Your task to perform on an android device: install app "YouTube Kids" Image 0: 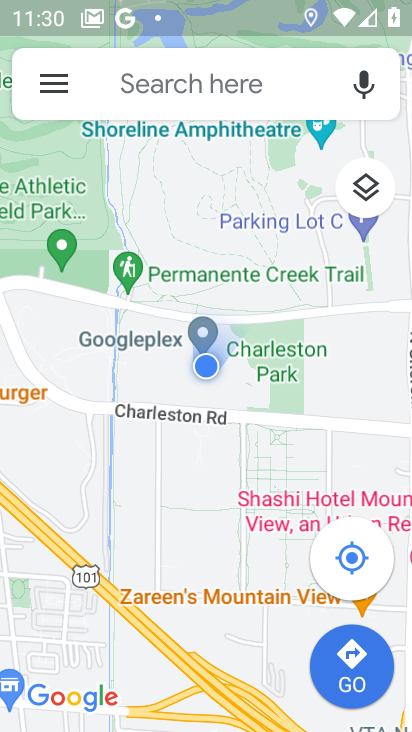
Step 0: press back button
Your task to perform on an android device: install app "YouTube Kids" Image 1: 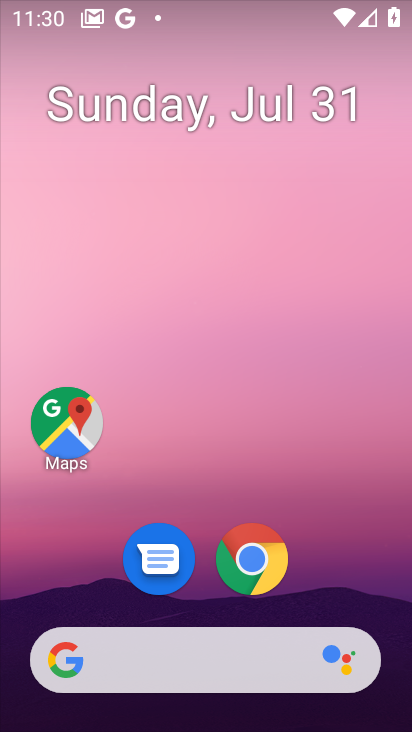
Step 1: drag from (118, 564) to (196, 3)
Your task to perform on an android device: install app "YouTube Kids" Image 2: 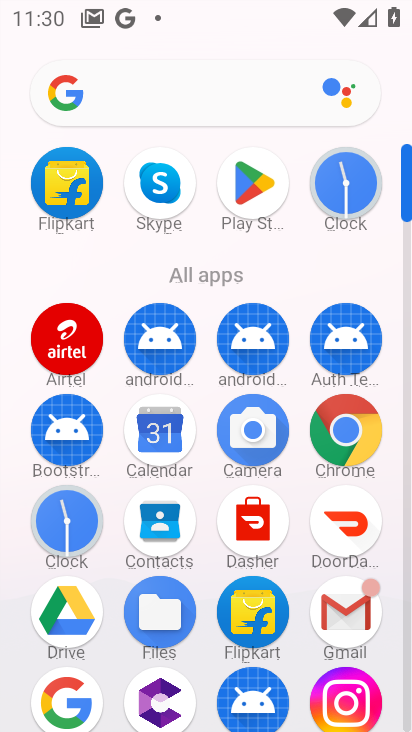
Step 2: click (258, 195)
Your task to perform on an android device: install app "YouTube Kids" Image 3: 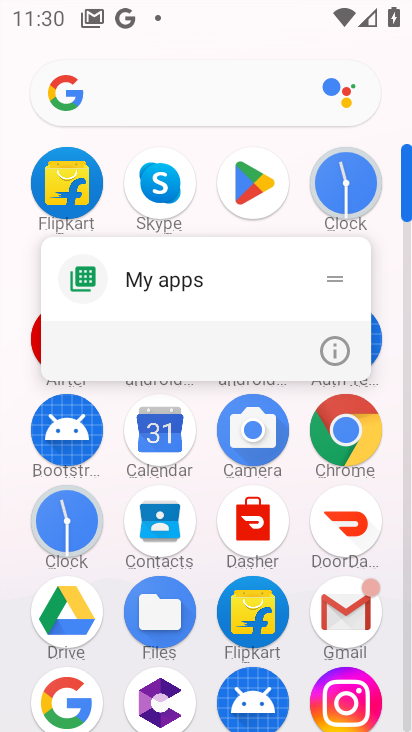
Step 3: click (238, 188)
Your task to perform on an android device: install app "YouTube Kids" Image 4: 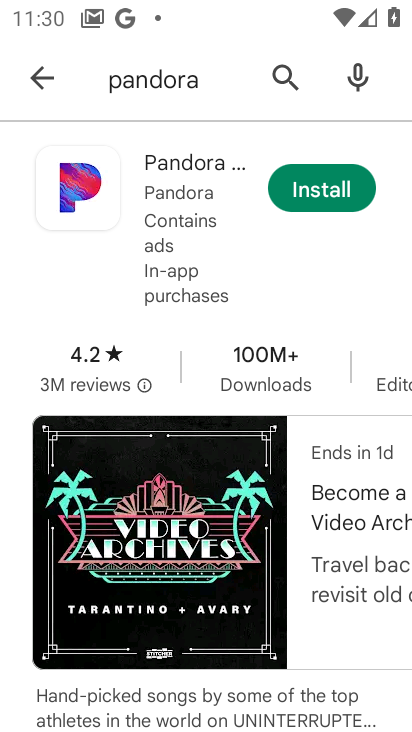
Step 4: click (286, 54)
Your task to perform on an android device: install app "YouTube Kids" Image 5: 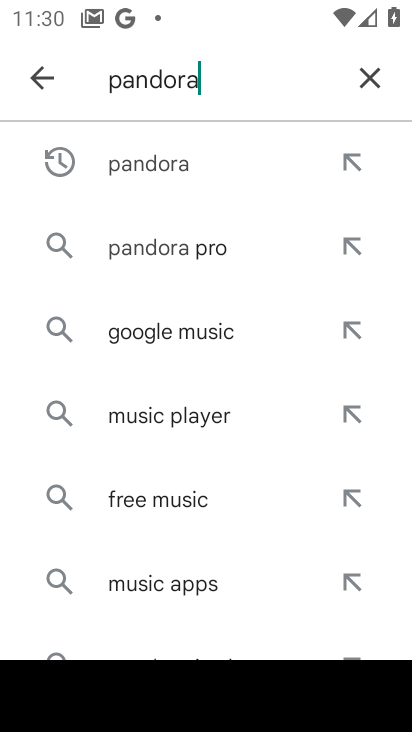
Step 5: click (369, 84)
Your task to perform on an android device: install app "YouTube Kids" Image 6: 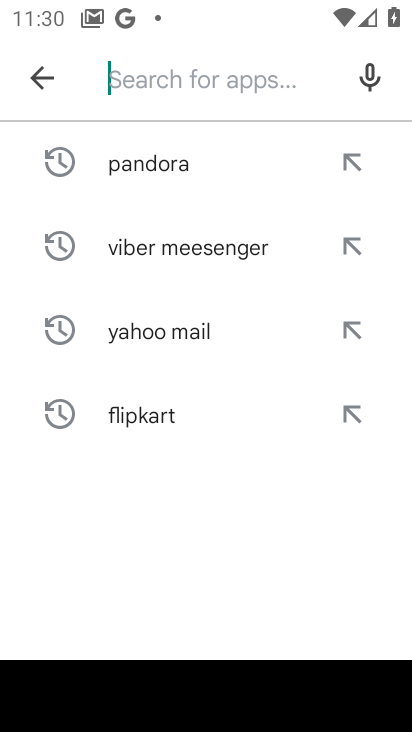
Step 6: click (140, 78)
Your task to perform on an android device: install app "YouTube Kids" Image 7: 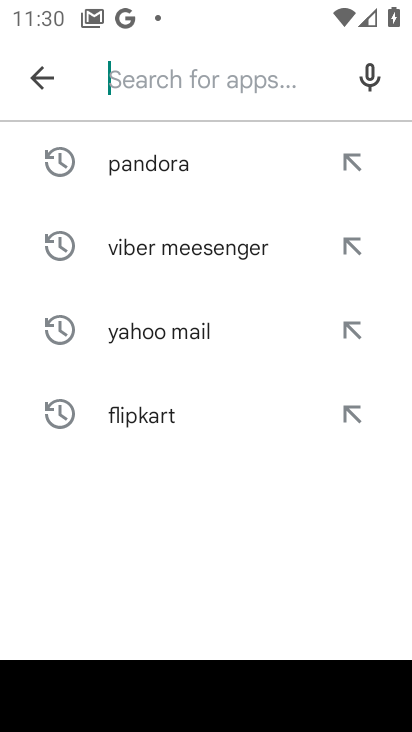
Step 7: type "youtube kids"
Your task to perform on an android device: install app "YouTube Kids" Image 8: 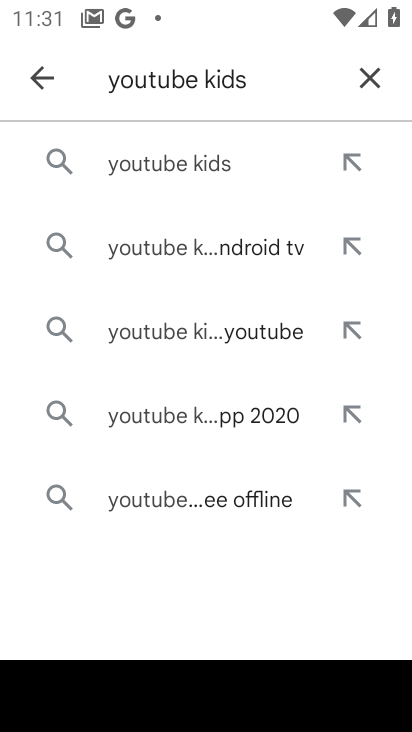
Step 8: click (178, 172)
Your task to perform on an android device: install app "YouTube Kids" Image 9: 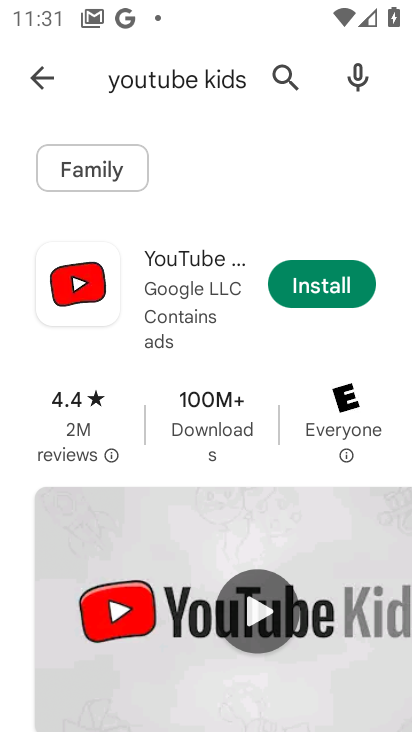
Step 9: click (308, 285)
Your task to perform on an android device: install app "YouTube Kids" Image 10: 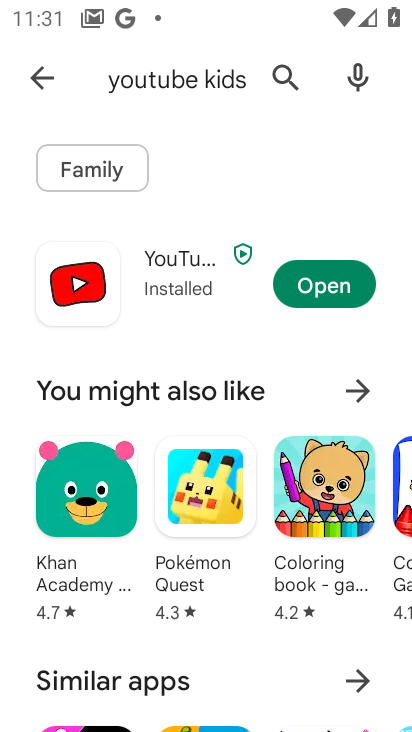
Step 10: click (322, 298)
Your task to perform on an android device: install app "YouTube Kids" Image 11: 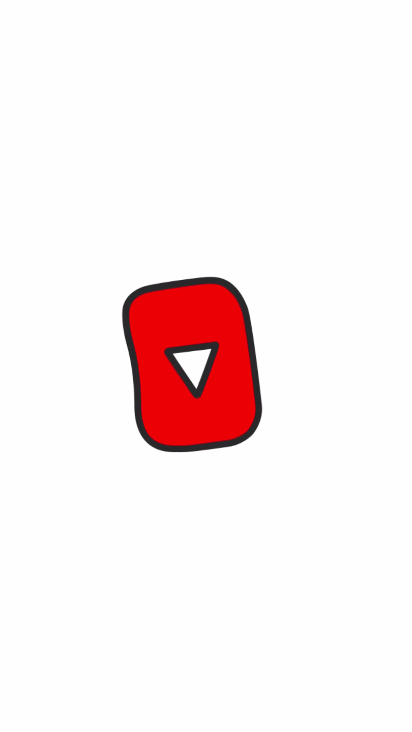
Step 11: task complete